Your task to perform on an android device: Search for the best selling books Image 0: 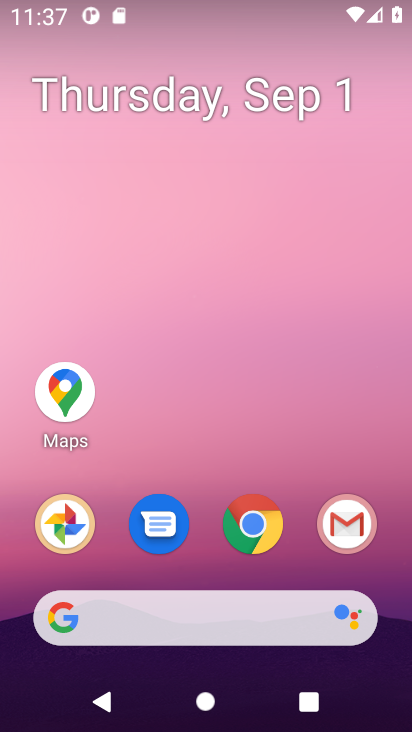
Step 0: click (220, 624)
Your task to perform on an android device: Search for the best selling books Image 1: 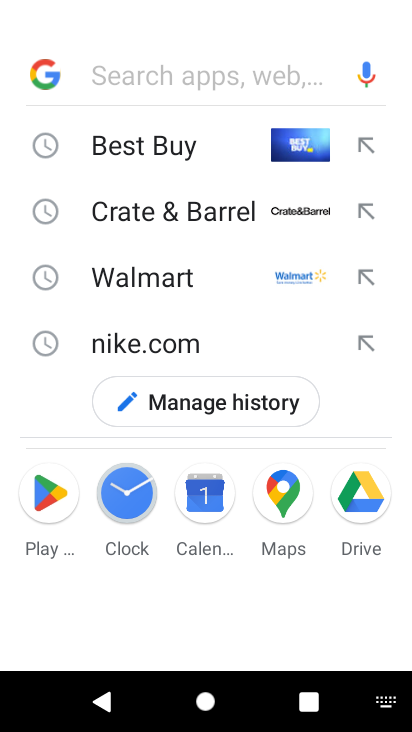
Step 1: press enter
Your task to perform on an android device: Search for the best selling books Image 2: 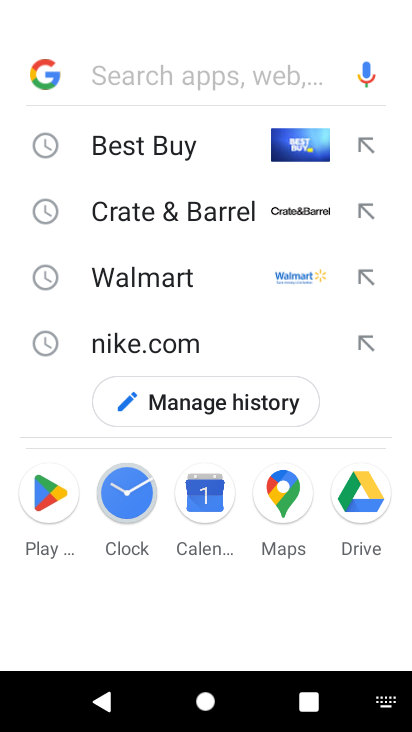
Step 2: type " best selling books"
Your task to perform on an android device: Search for the best selling books Image 3: 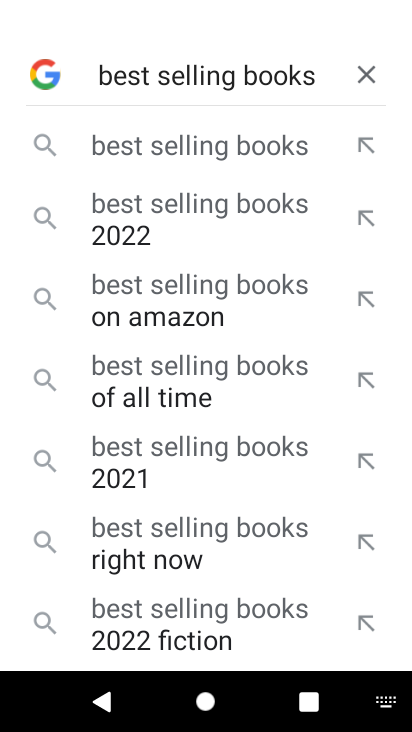
Step 3: click (243, 148)
Your task to perform on an android device: Search for the best selling books Image 4: 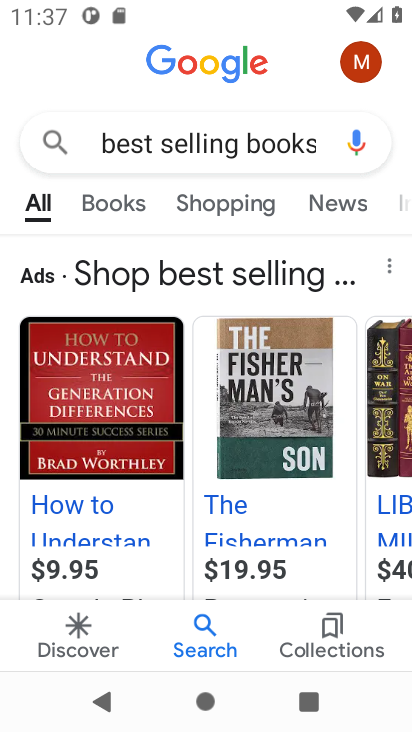
Step 4: task complete